Your task to perform on an android device: install app "PUBG MOBILE" Image 0: 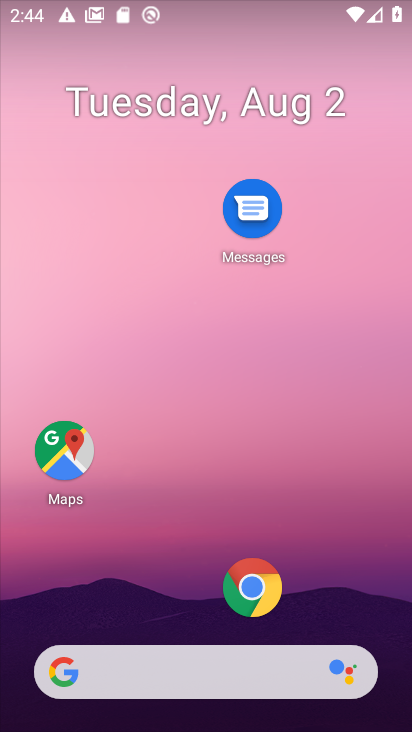
Step 0: drag from (168, 604) to (179, 165)
Your task to perform on an android device: install app "PUBG MOBILE" Image 1: 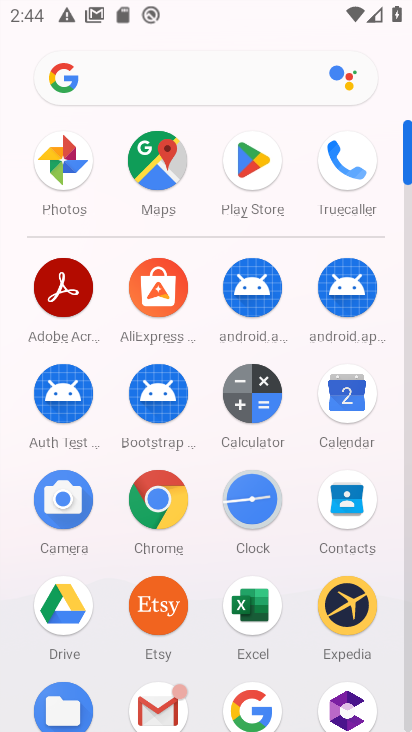
Step 1: click (254, 166)
Your task to perform on an android device: install app "PUBG MOBILE" Image 2: 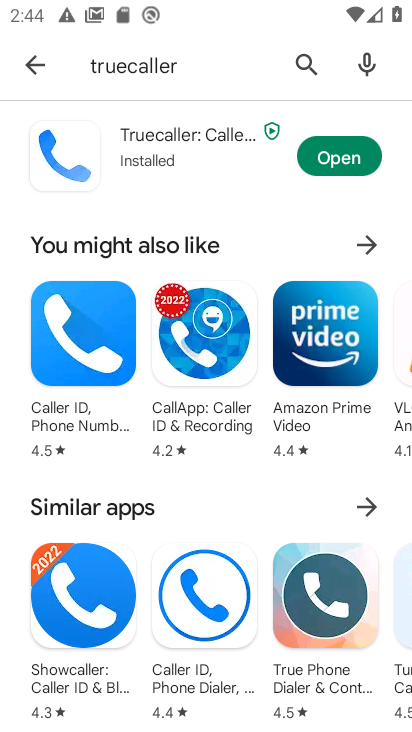
Step 2: click (306, 66)
Your task to perform on an android device: install app "PUBG MOBILE" Image 3: 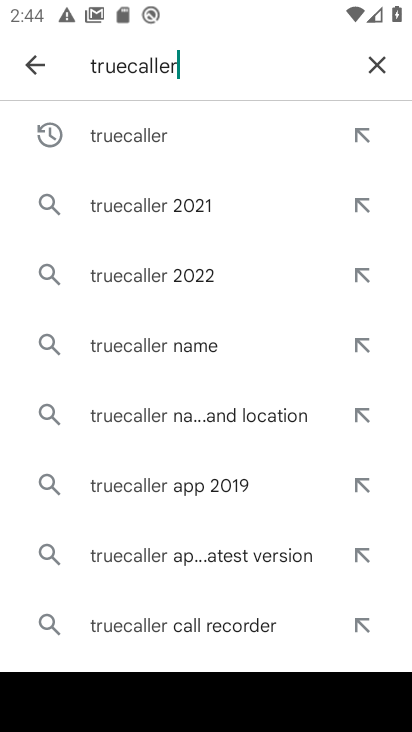
Step 3: click (384, 56)
Your task to perform on an android device: install app "PUBG MOBILE" Image 4: 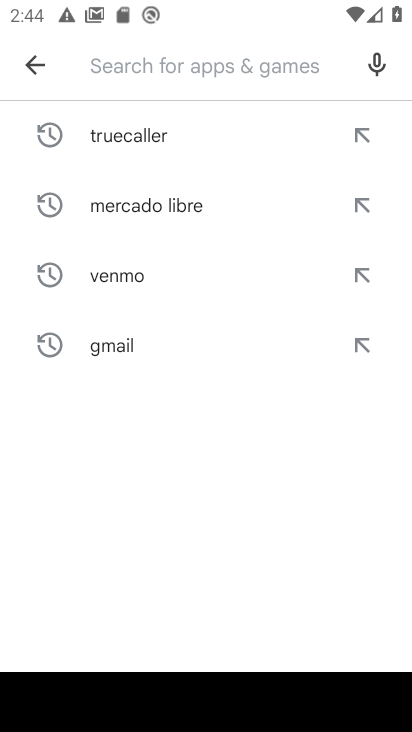
Step 4: type "PUBG MOBILE"
Your task to perform on an android device: install app "PUBG MOBILE" Image 5: 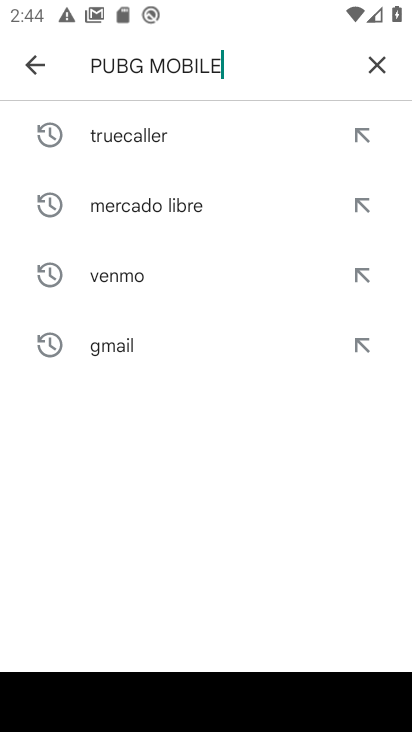
Step 5: type ""
Your task to perform on an android device: install app "PUBG MOBILE" Image 6: 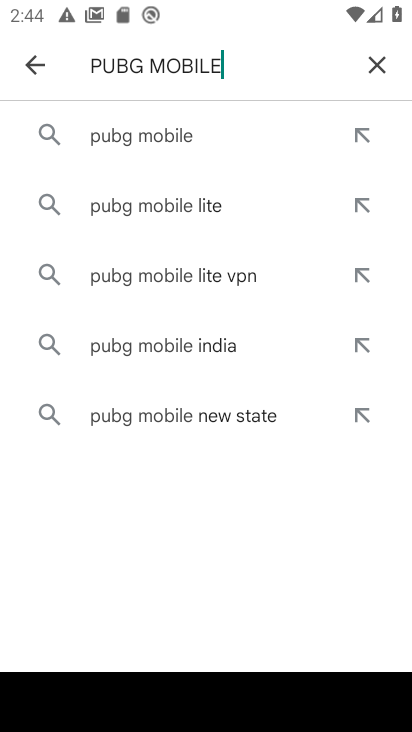
Step 6: click (201, 141)
Your task to perform on an android device: install app "PUBG MOBILE" Image 7: 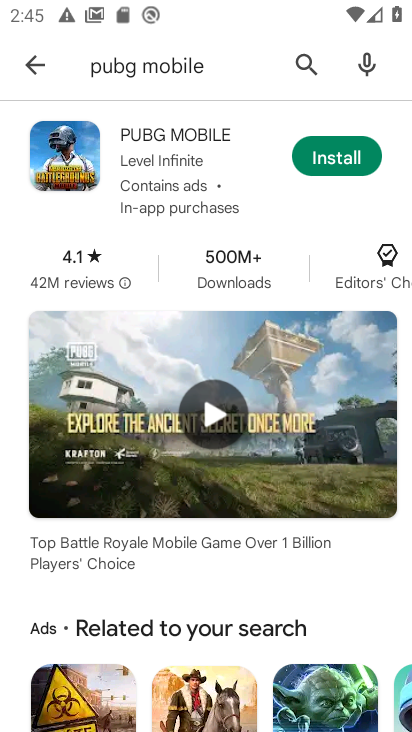
Step 7: click (325, 168)
Your task to perform on an android device: install app "PUBG MOBILE" Image 8: 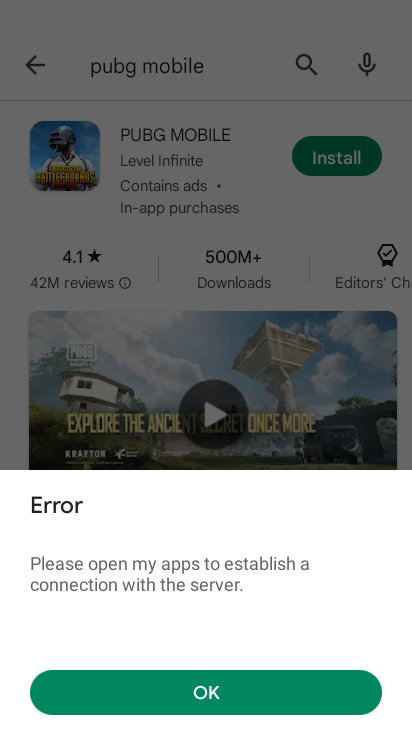
Step 8: task complete